Your task to perform on an android device: What's the news this month? Image 0: 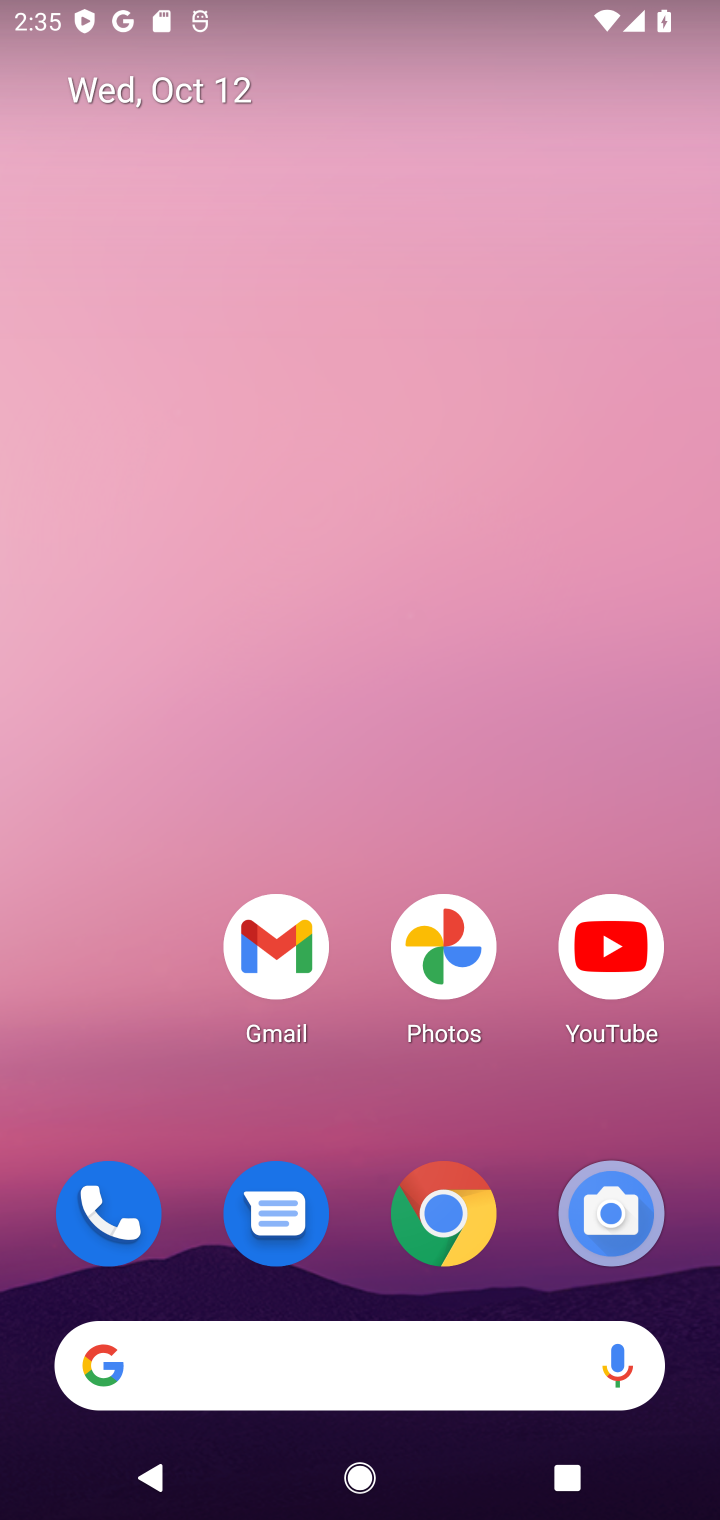
Step 0: click (299, 1367)
Your task to perform on an android device: What's the news this month? Image 1: 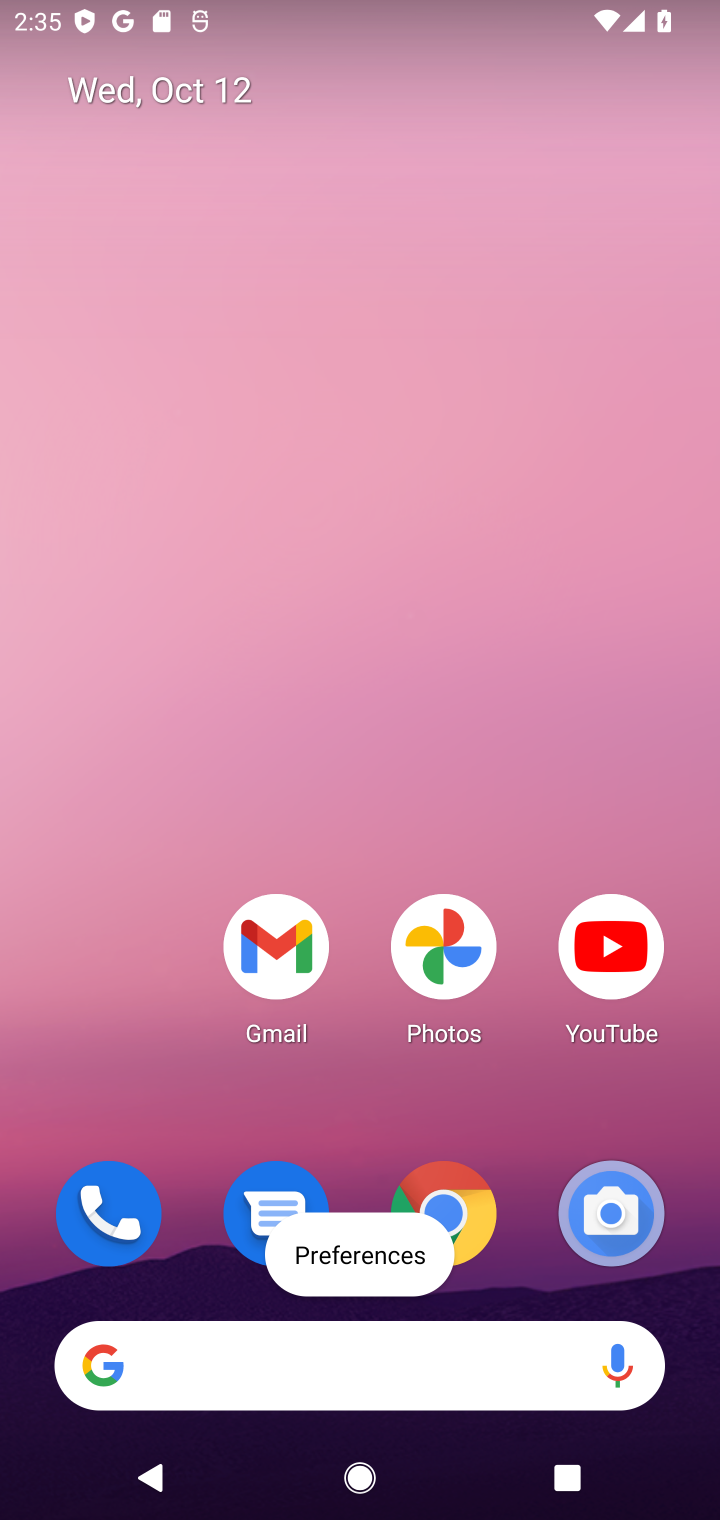
Step 1: click (297, 1358)
Your task to perform on an android device: What's the news this month? Image 2: 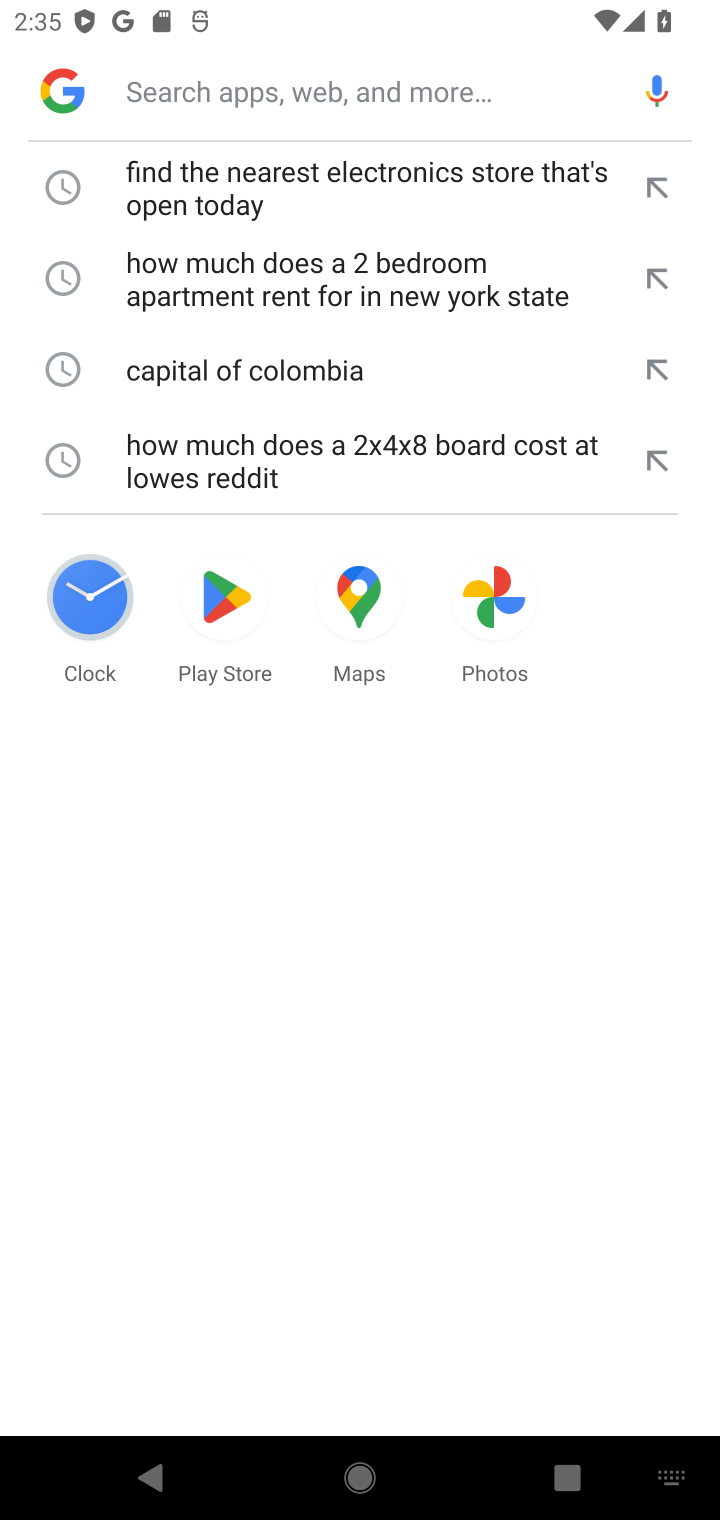
Step 2: click (205, 79)
Your task to perform on an android device: What's the news this month? Image 3: 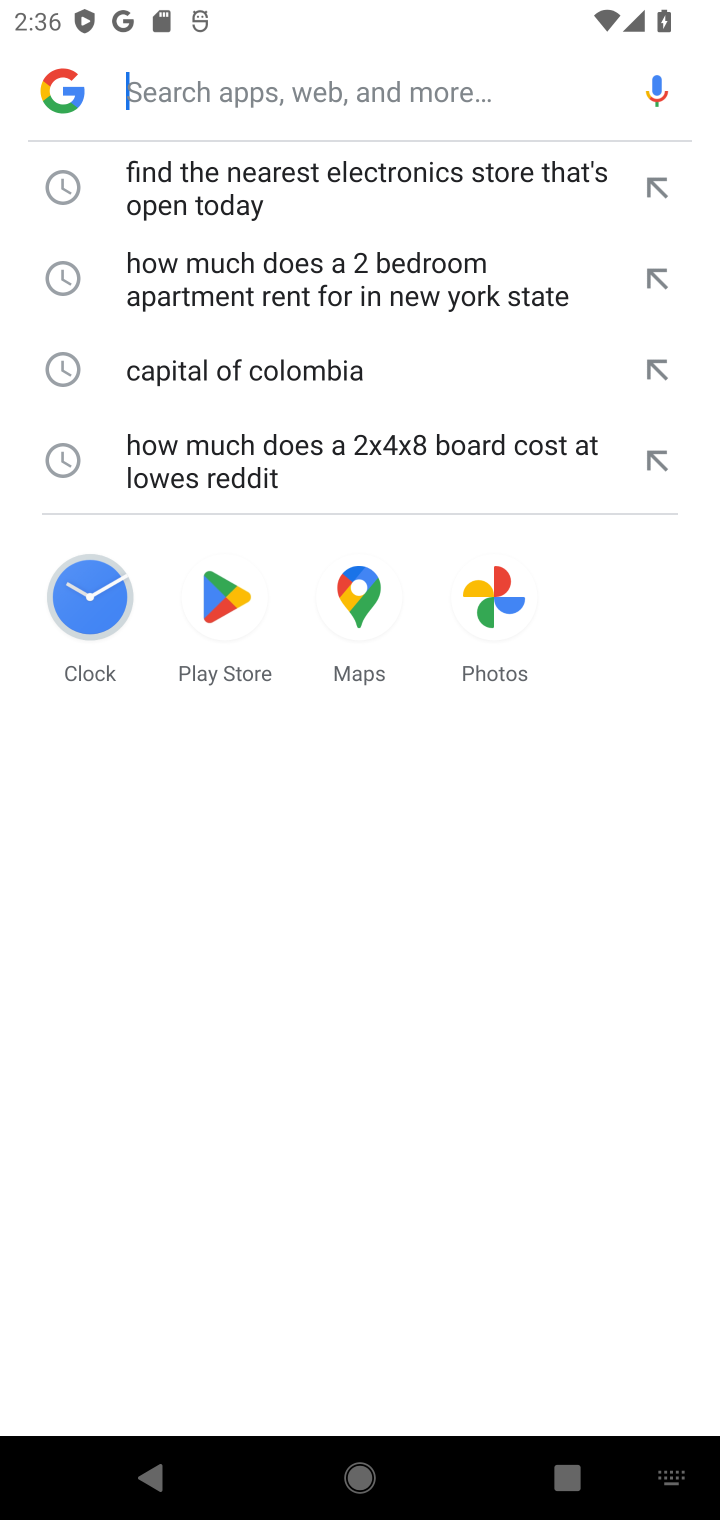
Step 3: type "What's the news this month?"
Your task to perform on an android device: What's the news this month? Image 4: 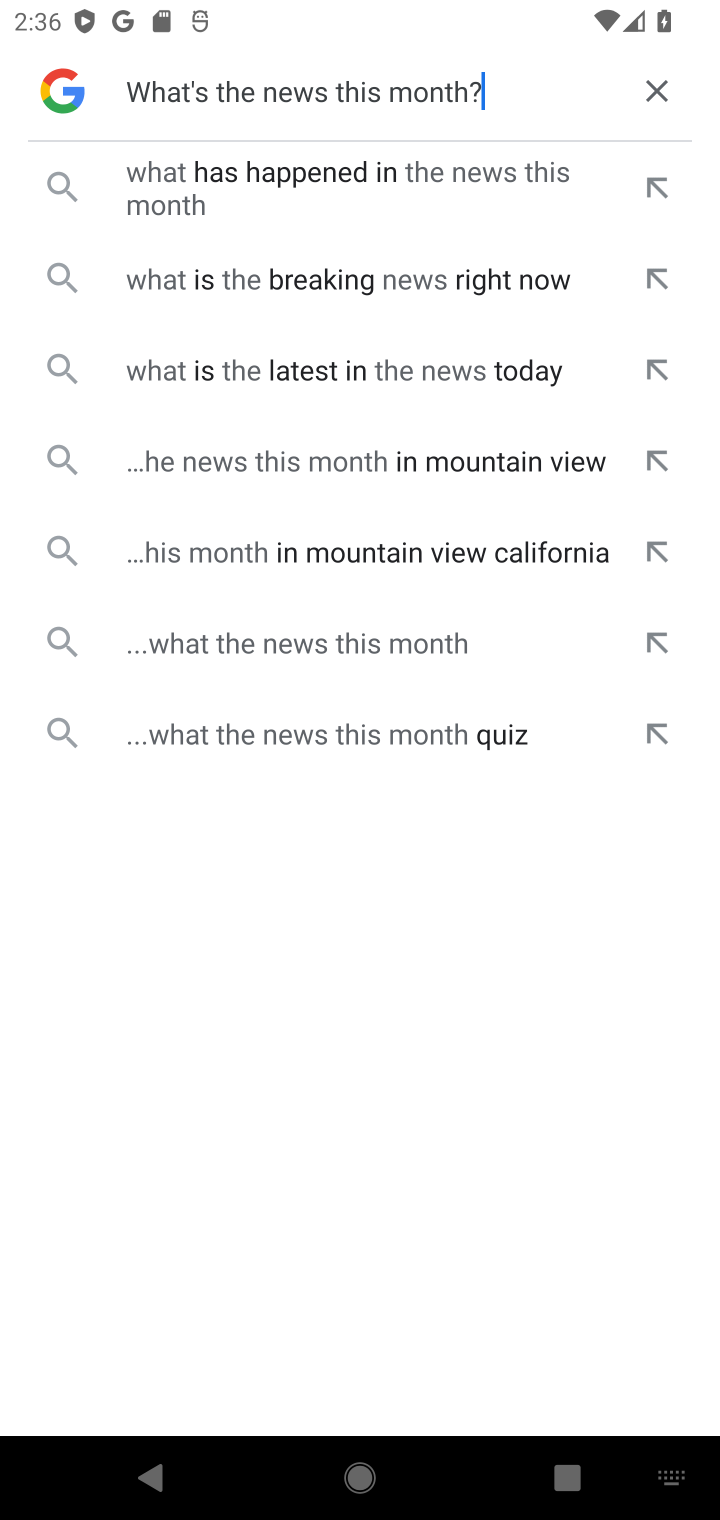
Step 4: click (312, 655)
Your task to perform on an android device: What's the news this month? Image 5: 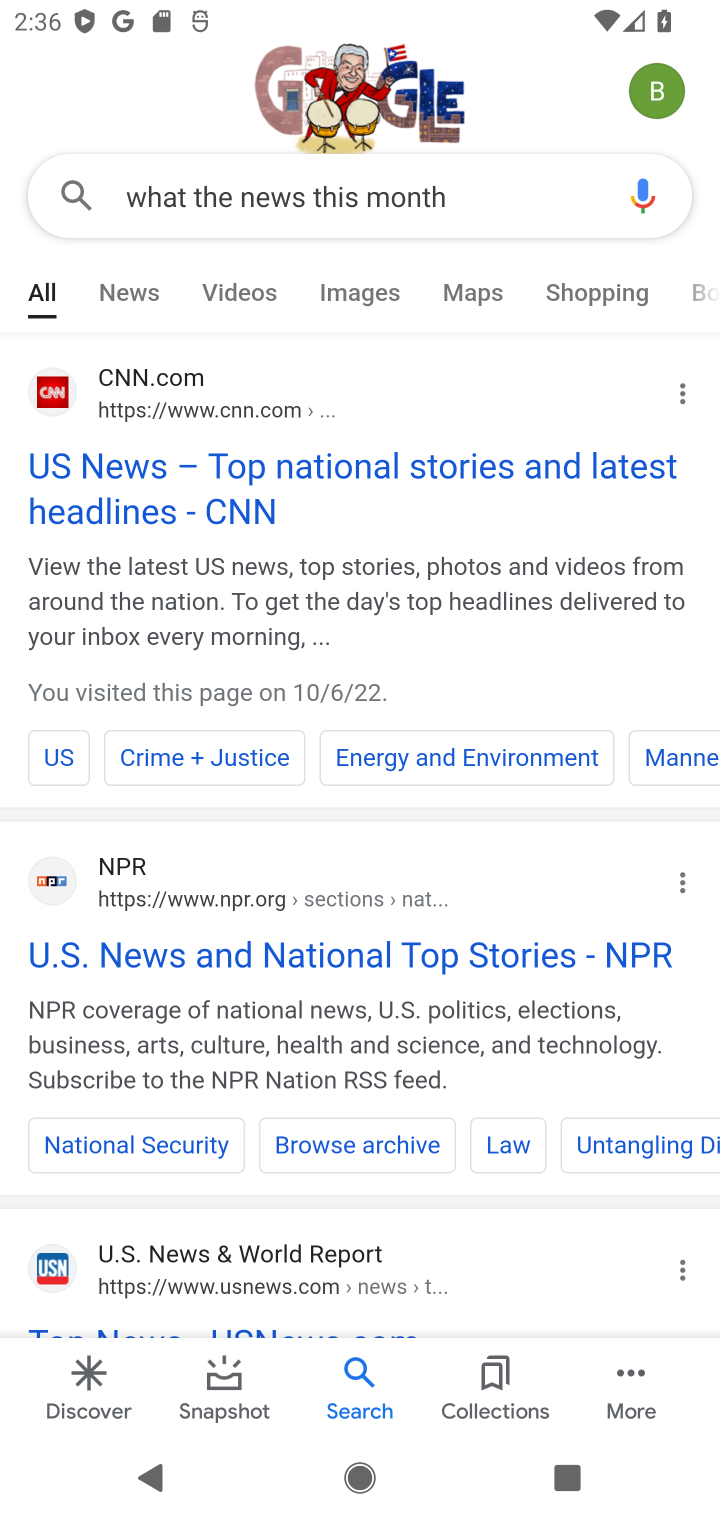
Step 5: click (372, 460)
Your task to perform on an android device: What's the news this month? Image 6: 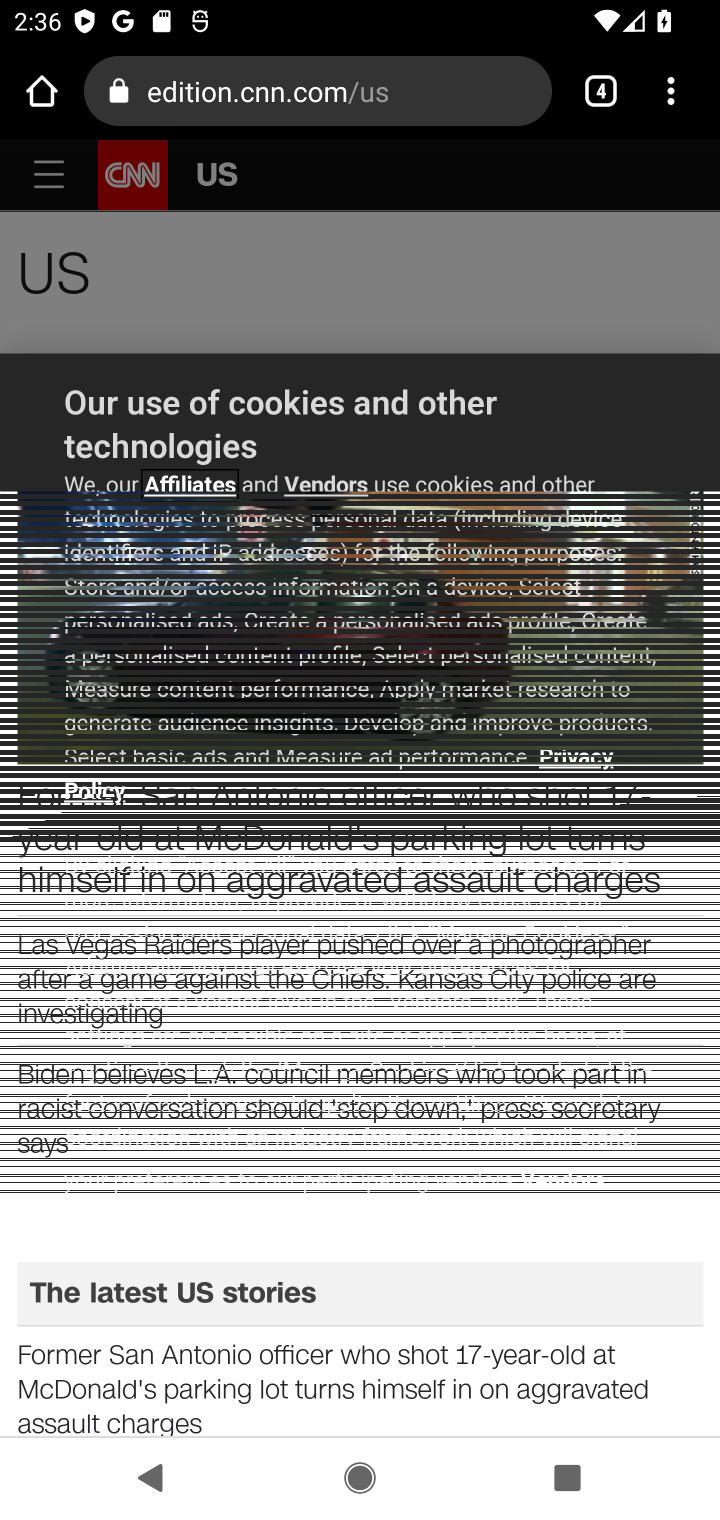
Step 6: task complete